Your task to perform on an android device: Open maps Image 0: 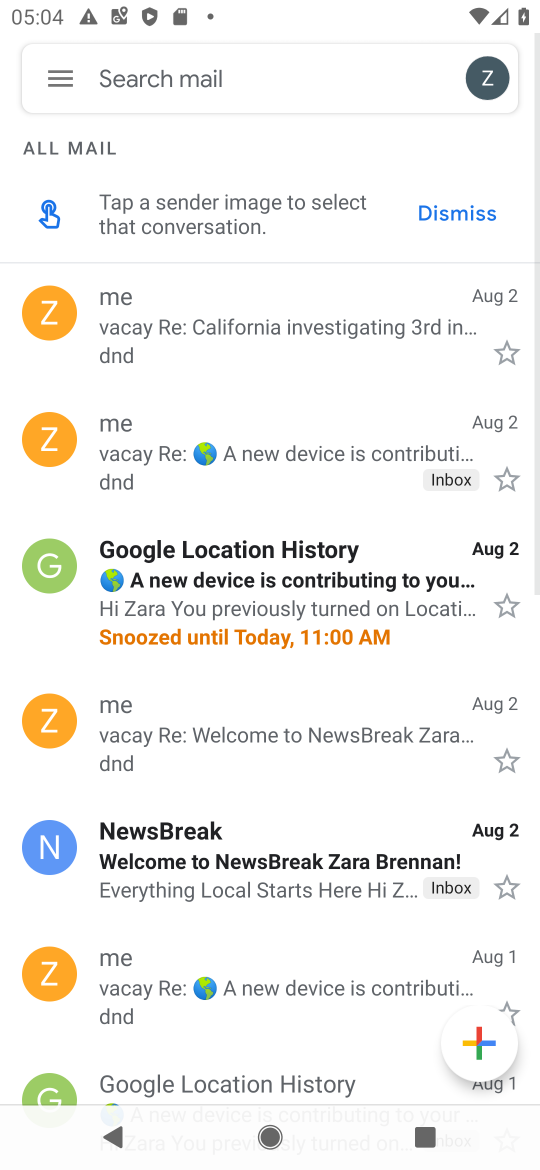
Step 0: press back button
Your task to perform on an android device: Open maps Image 1: 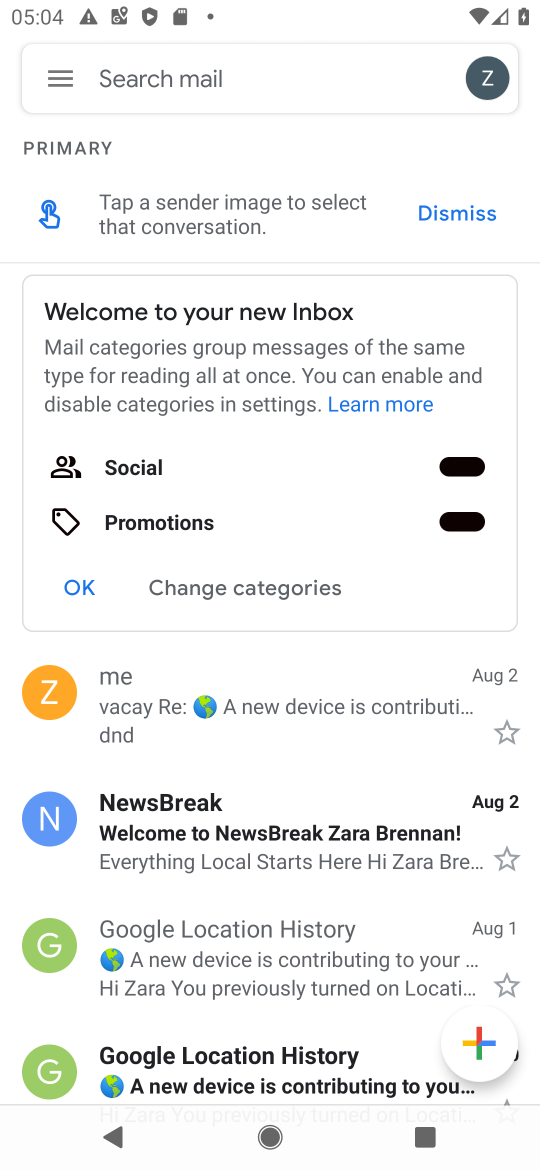
Step 1: press home button
Your task to perform on an android device: Open maps Image 2: 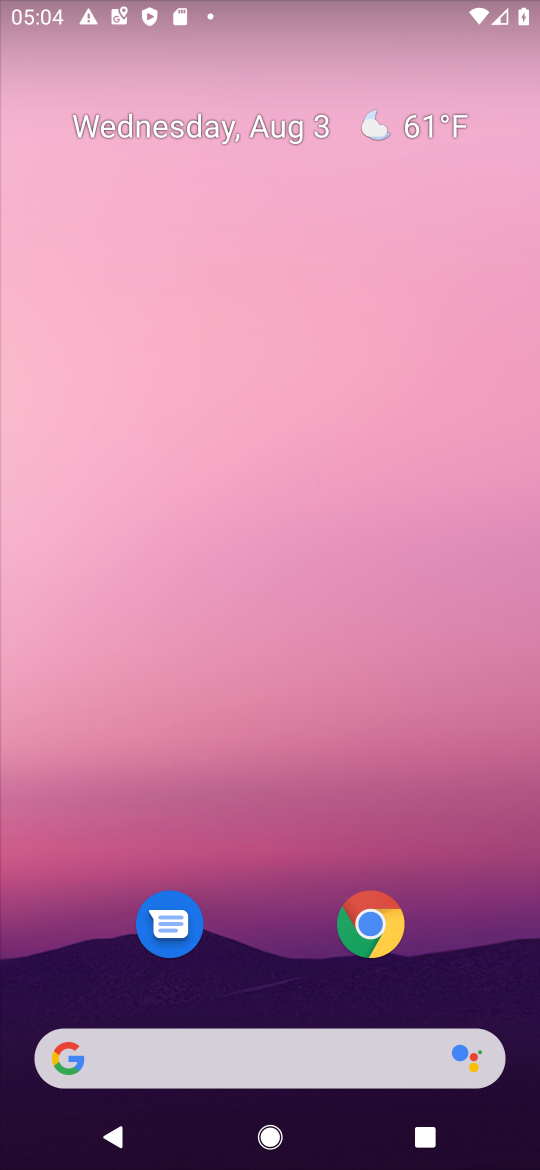
Step 2: drag from (252, 979) to (175, 269)
Your task to perform on an android device: Open maps Image 3: 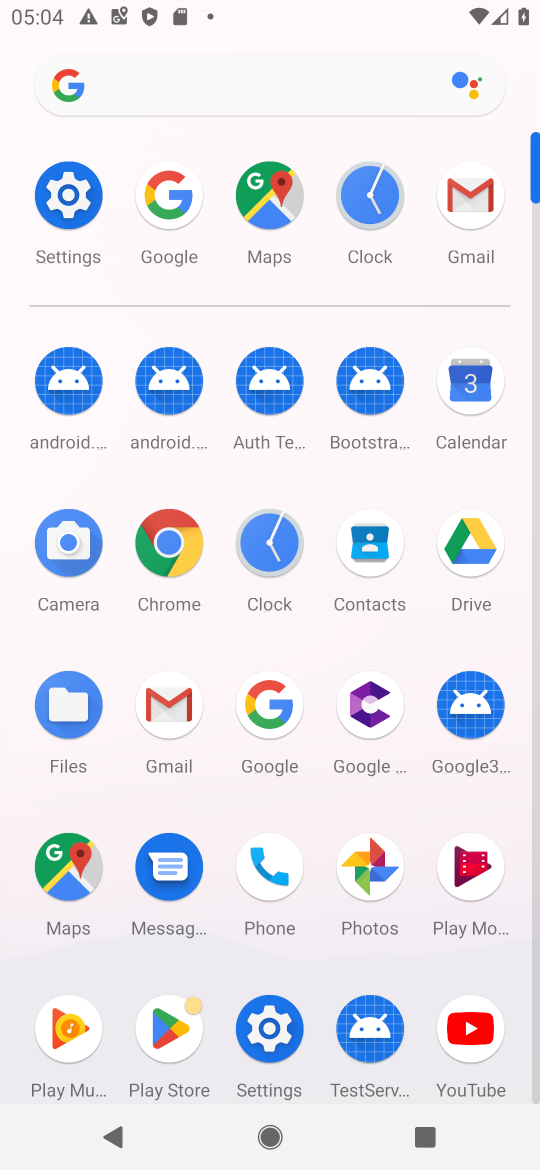
Step 3: click (246, 216)
Your task to perform on an android device: Open maps Image 4: 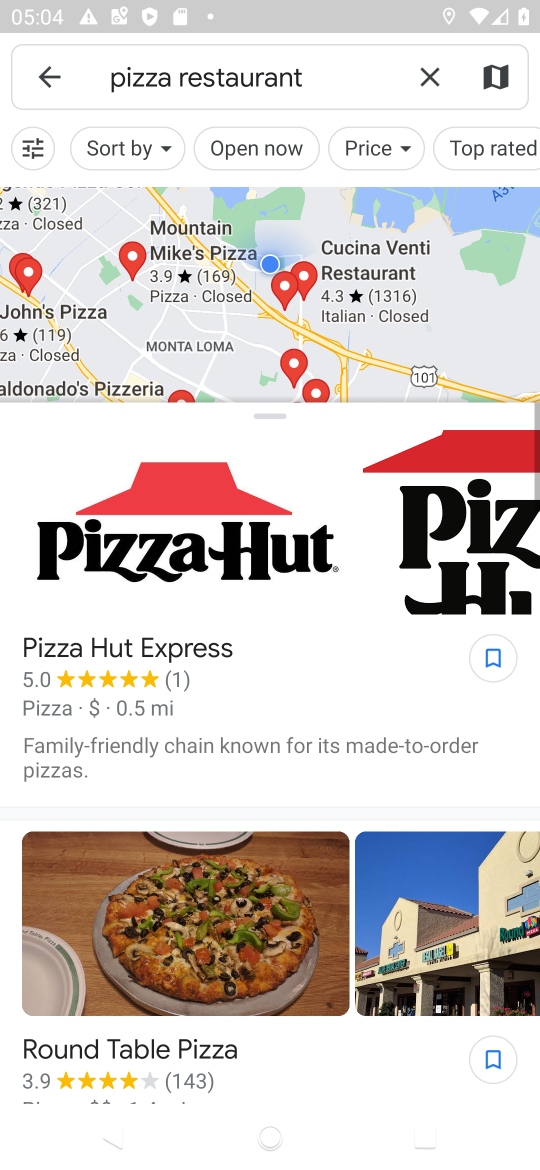
Step 4: click (419, 76)
Your task to perform on an android device: Open maps Image 5: 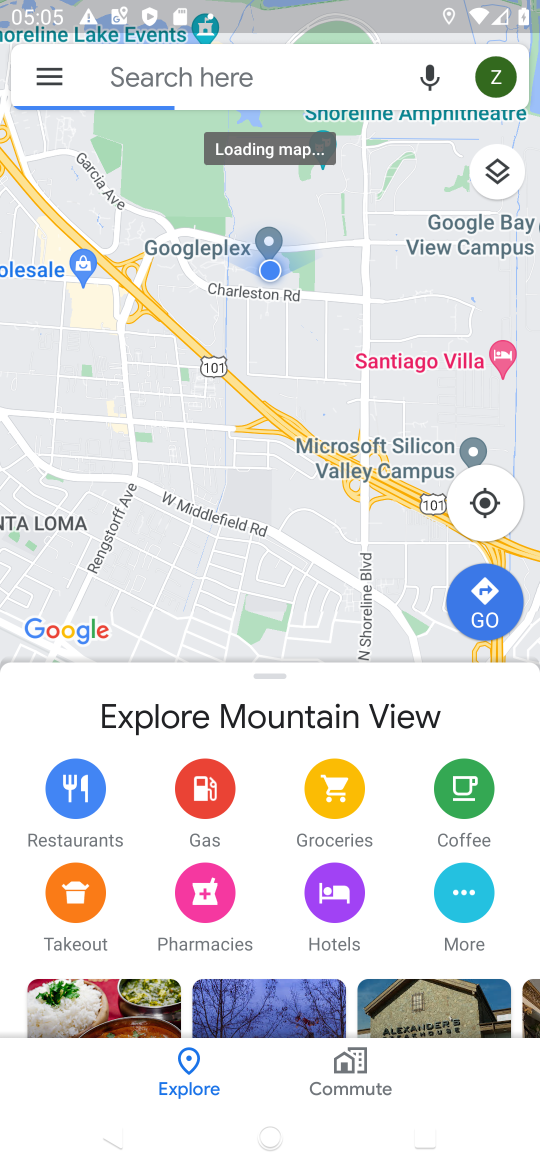
Step 5: task complete